Your task to perform on an android device: Clear the shopping cart on costco.com. Image 0: 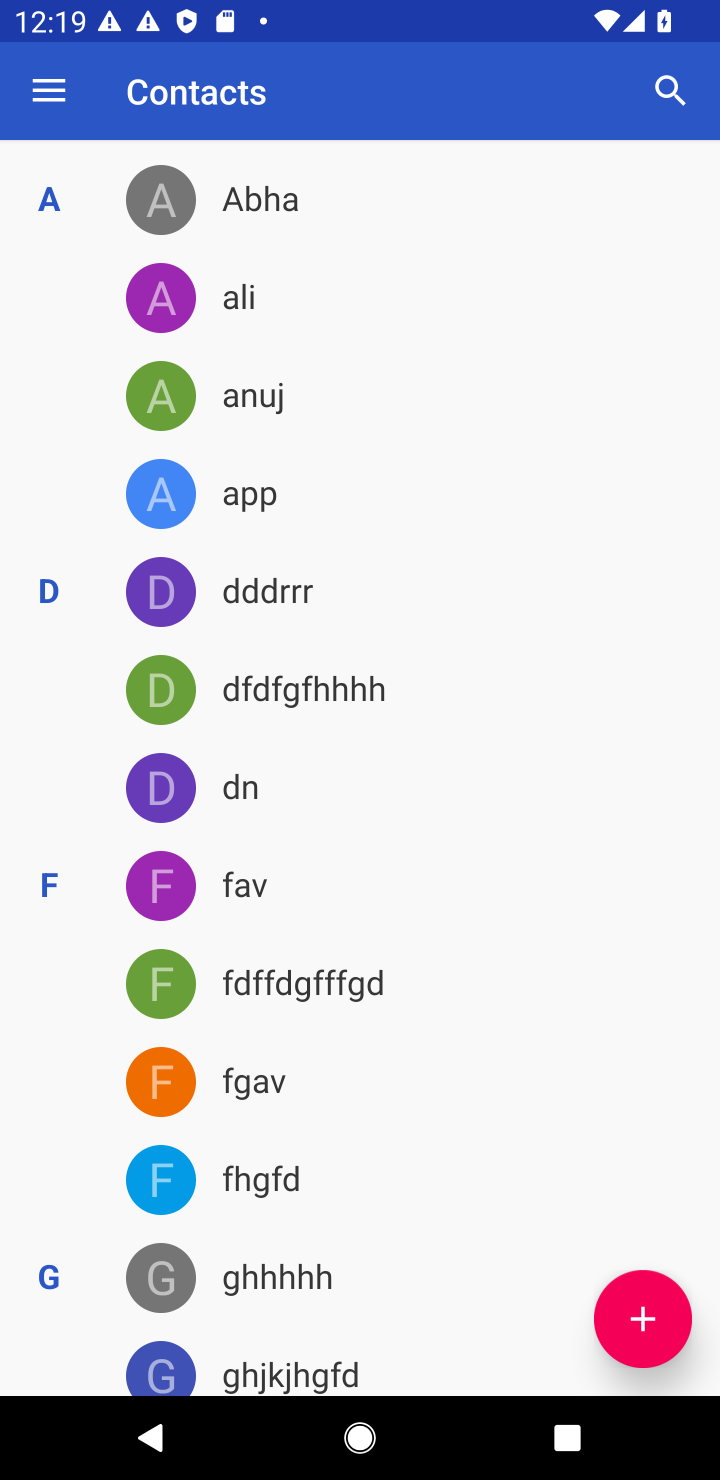
Step 0: press home button
Your task to perform on an android device: Clear the shopping cart on costco.com. Image 1: 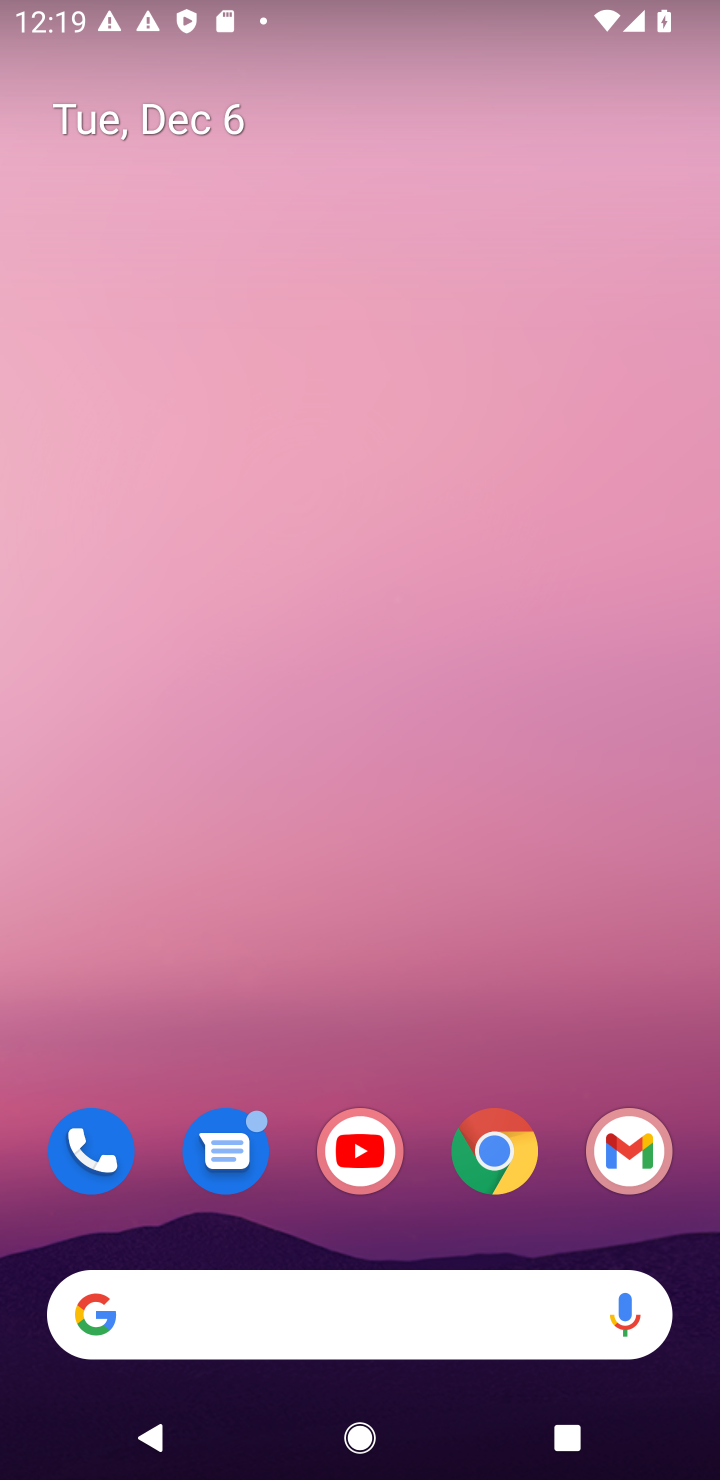
Step 1: click (496, 1163)
Your task to perform on an android device: Clear the shopping cart on costco.com. Image 2: 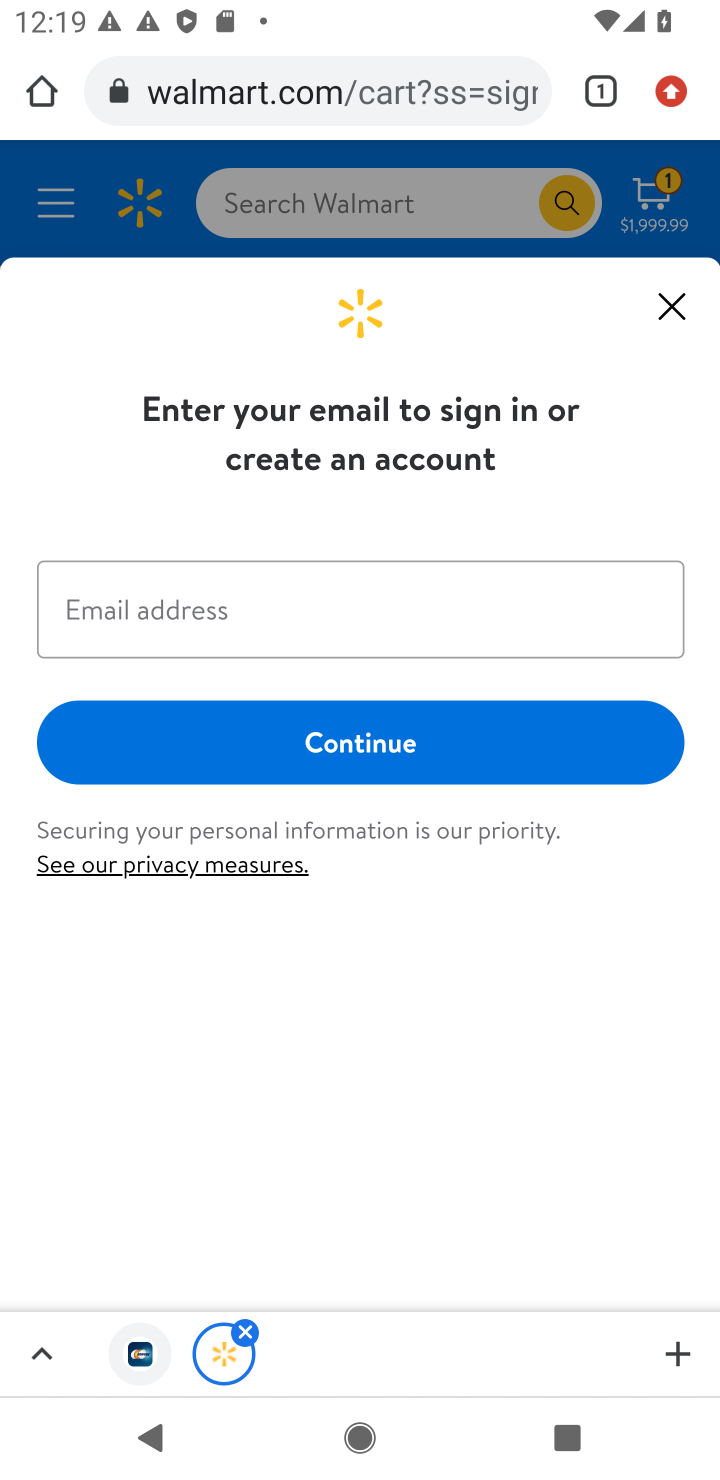
Step 2: click (310, 97)
Your task to perform on an android device: Clear the shopping cart on costco.com. Image 3: 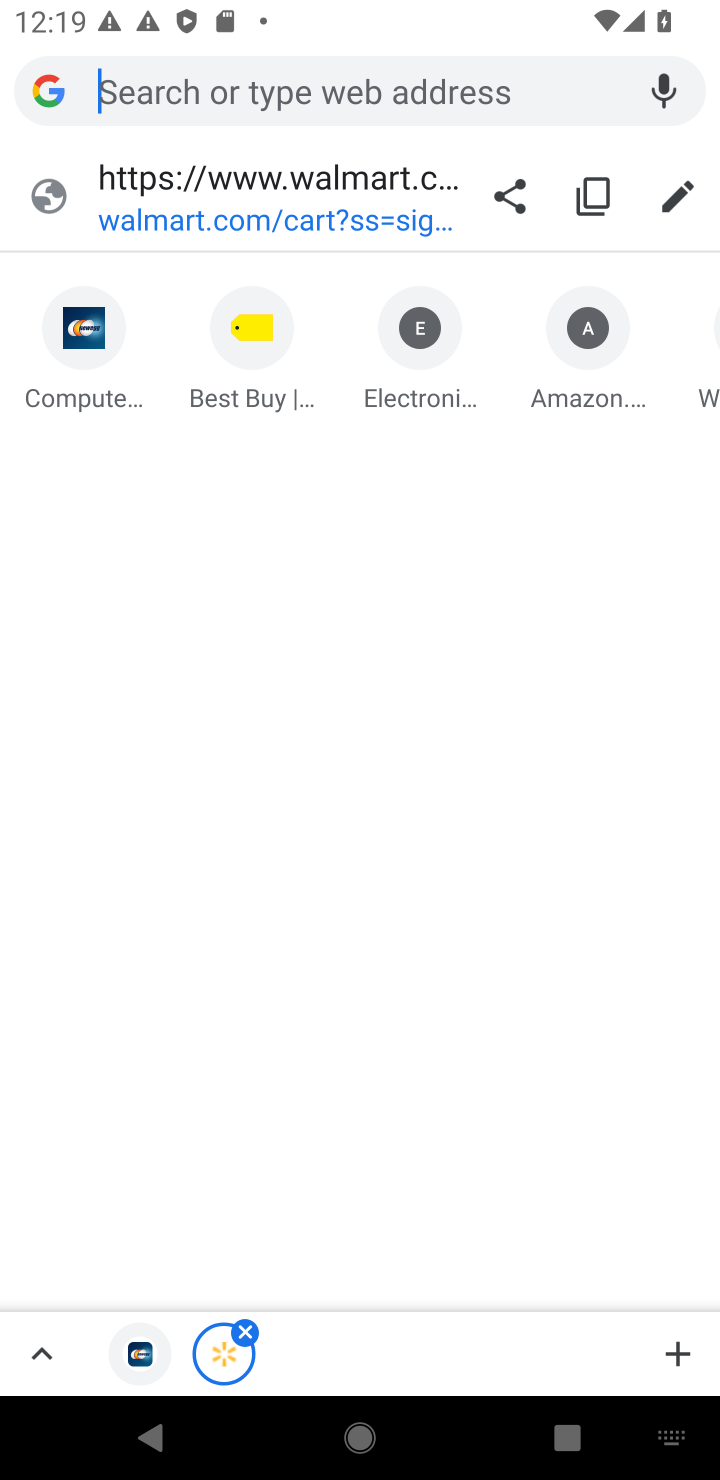
Step 3: type "costco.com"
Your task to perform on an android device: Clear the shopping cart on costco.com. Image 4: 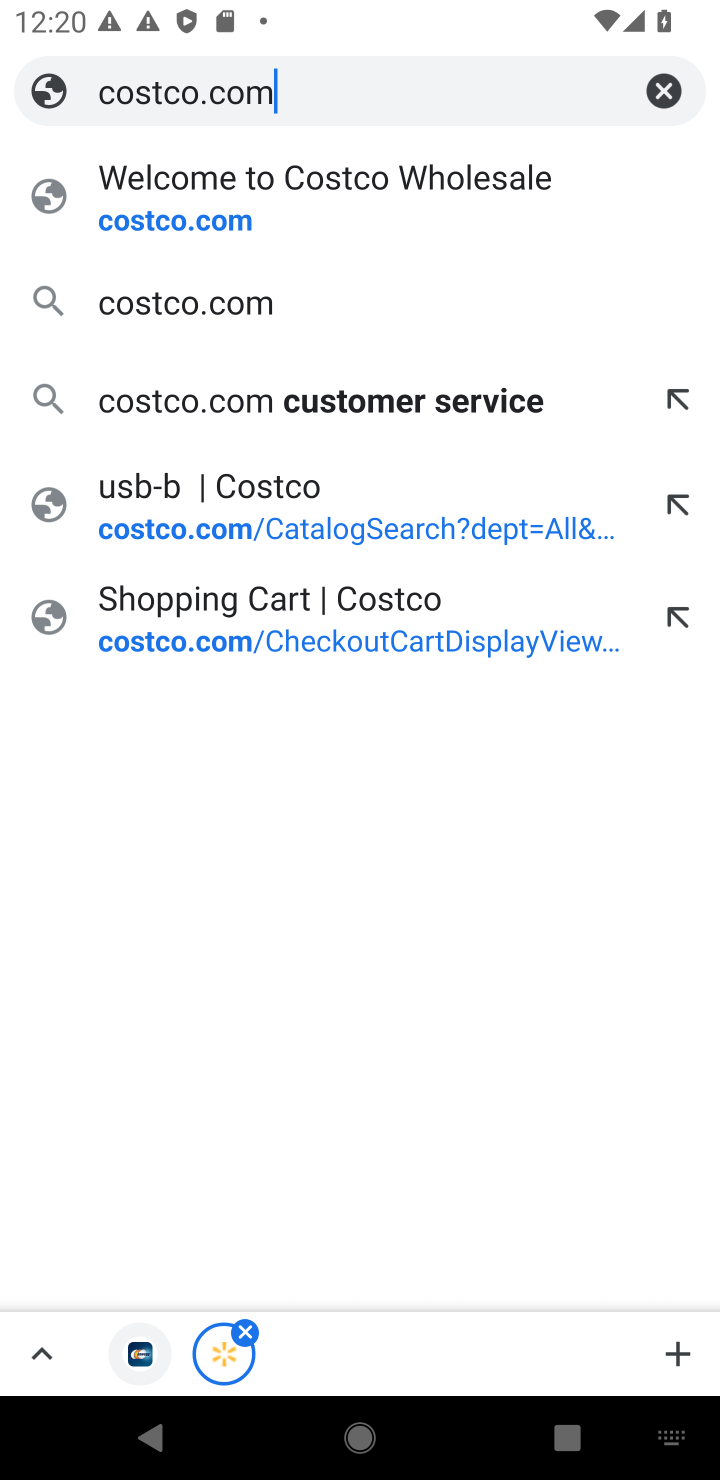
Step 4: click (175, 213)
Your task to perform on an android device: Clear the shopping cart on costco.com. Image 5: 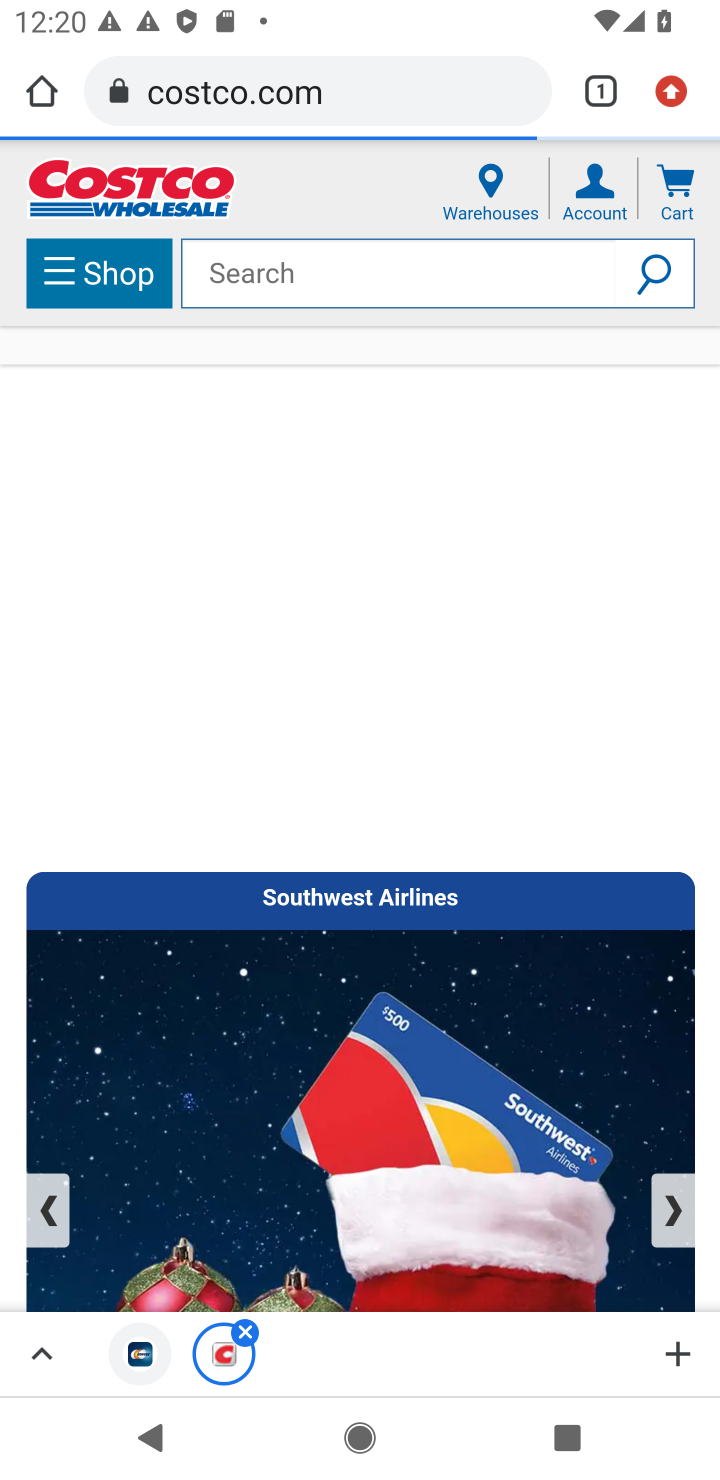
Step 5: click (686, 179)
Your task to perform on an android device: Clear the shopping cart on costco.com. Image 6: 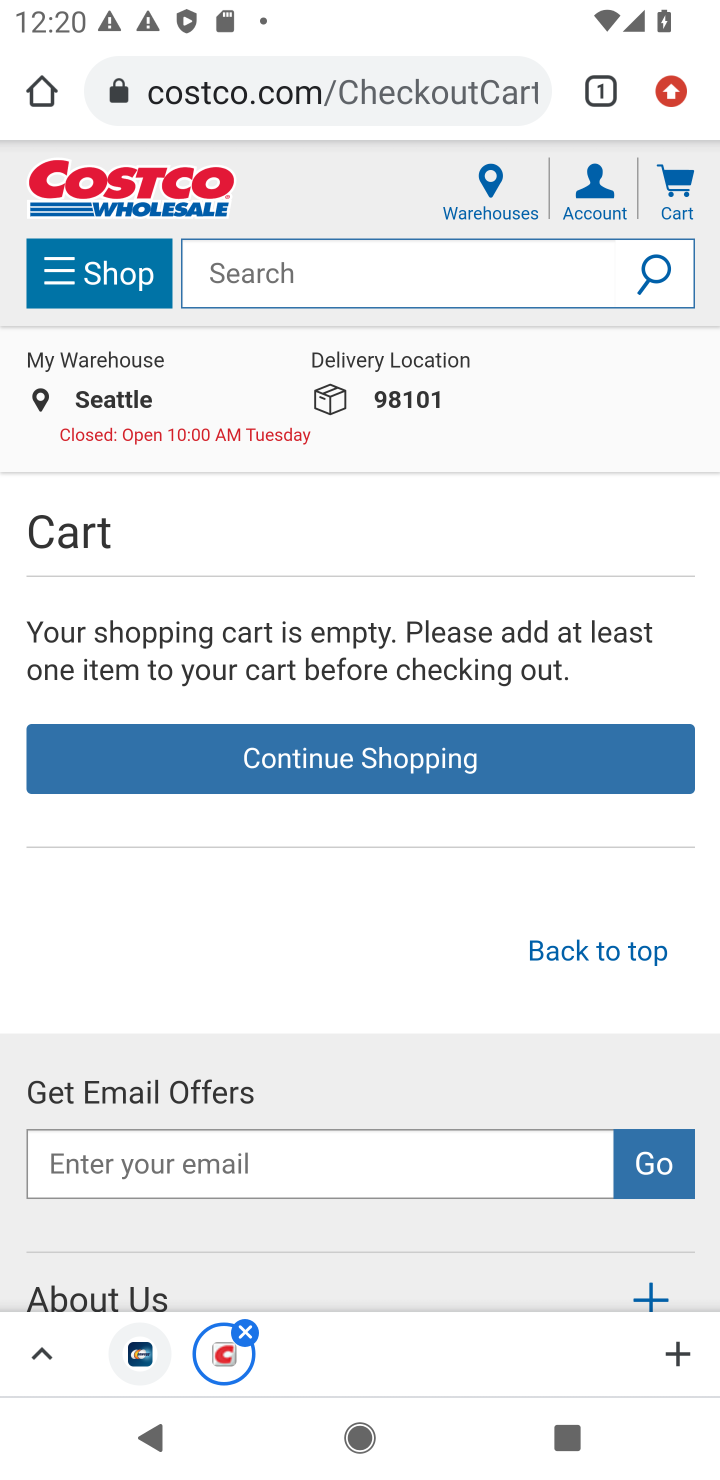
Step 6: task complete